Your task to perform on an android device: Go to ESPN.com Image 0: 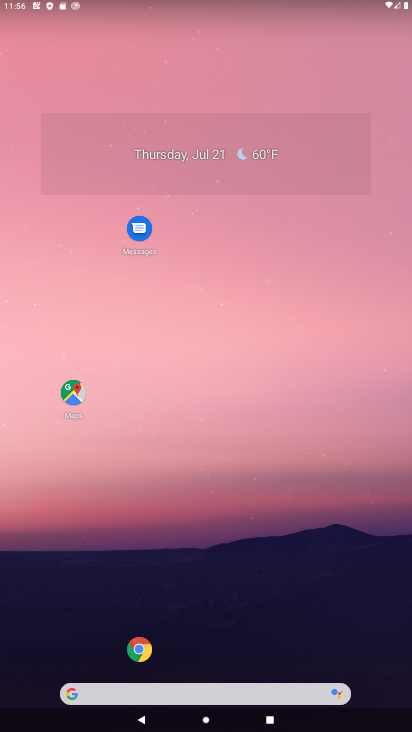
Step 0: click (87, 689)
Your task to perform on an android device: Go to ESPN.com Image 1: 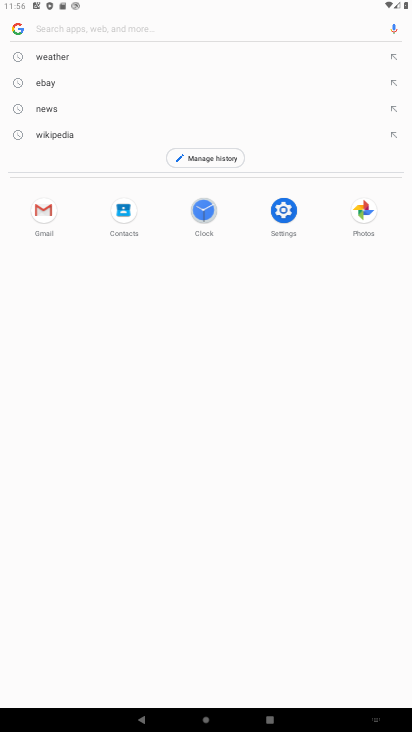
Step 1: type "ESPN.com"
Your task to perform on an android device: Go to ESPN.com Image 2: 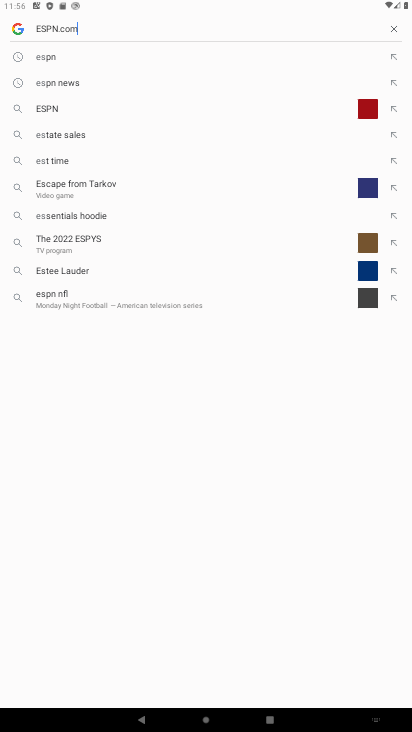
Step 2: type ""
Your task to perform on an android device: Go to ESPN.com Image 3: 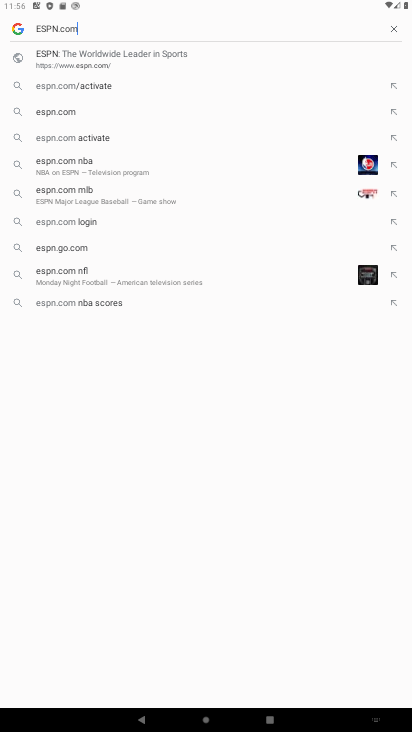
Step 3: click (56, 59)
Your task to perform on an android device: Go to ESPN.com Image 4: 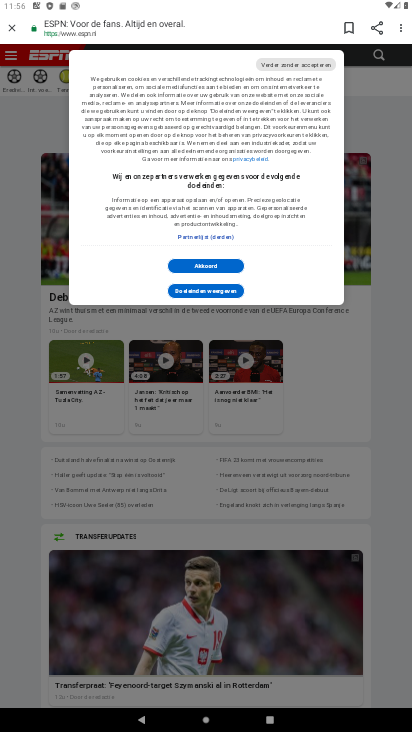
Step 4: task complete